Your task to perform on an android device: Go to network settings Image 0: 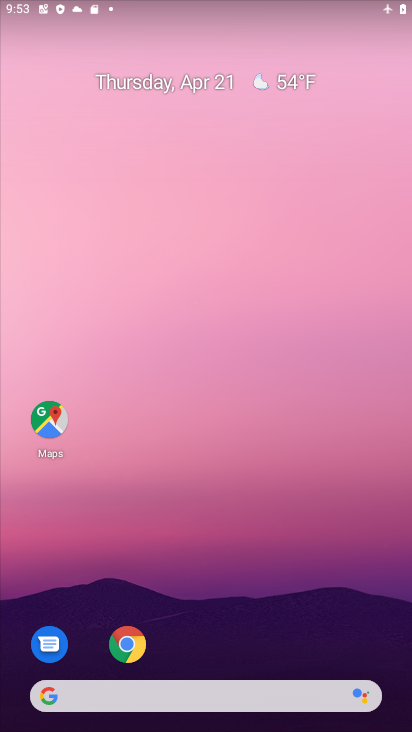
Step 0: drag from (172, 653) to (47, 86)
Your task to perform on an android device: Go to network settings Image 1: 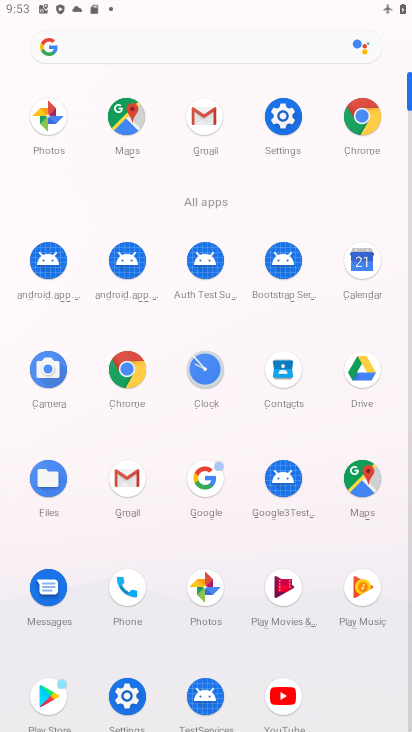
Step 1: click (290, 119)
Your task to perform on an android device: Go to network settings Image 2: 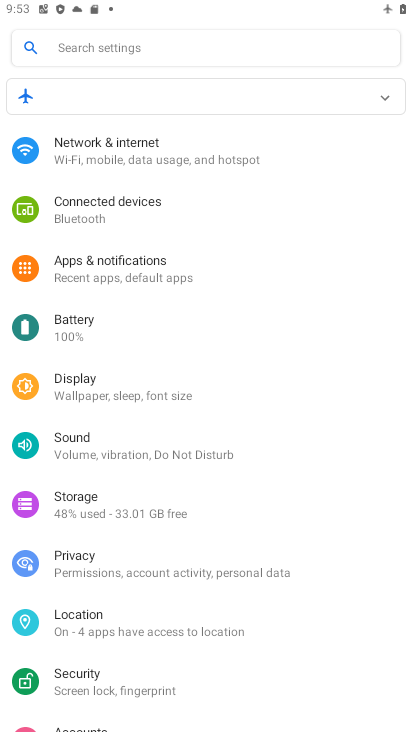
Step 2: click (120, 158)
Your task to perform on an android device: Go to network settings Image 3: 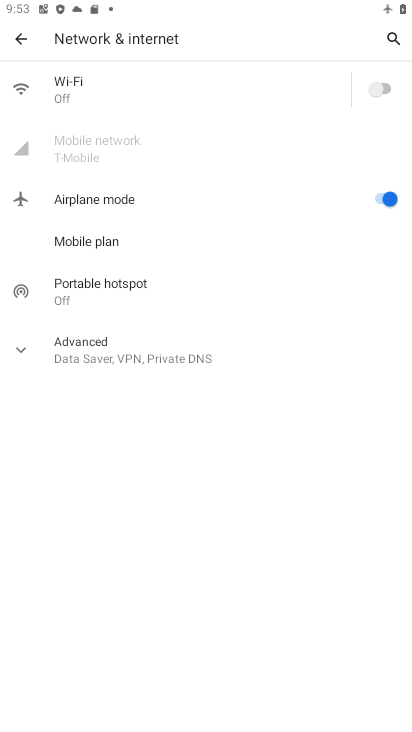
Step 3: task complete